Your task to perform on an android device: change text size in settings app Image 0: 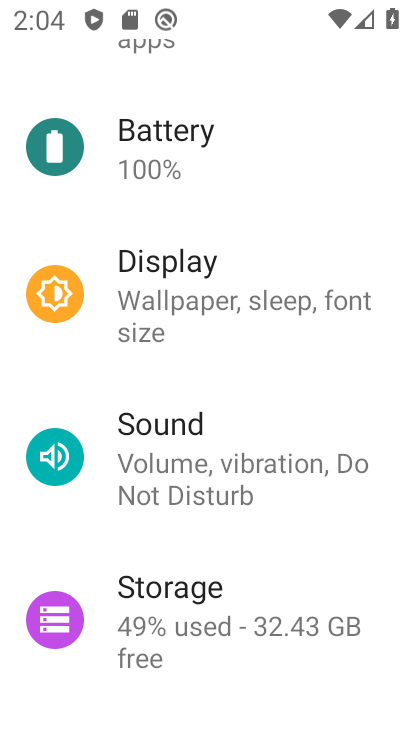
Step 0: drag from (325, 634) to (280, 353)
Your task to perform on an android device: change text size in settings app Image 1: 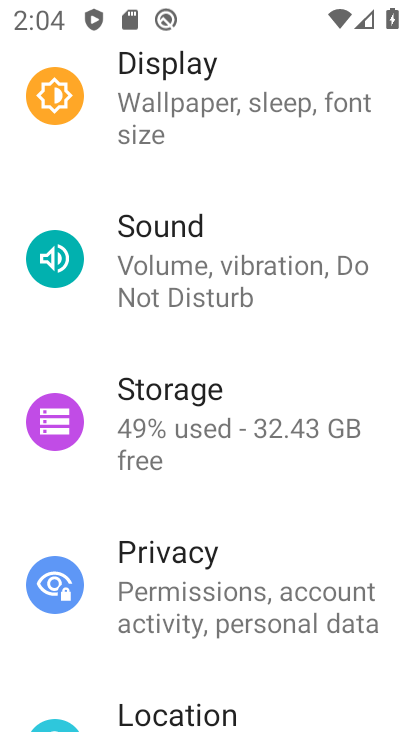
Step 1: click (226, 99)
Your task to perform on an android device: change text size in settings app Image 2: 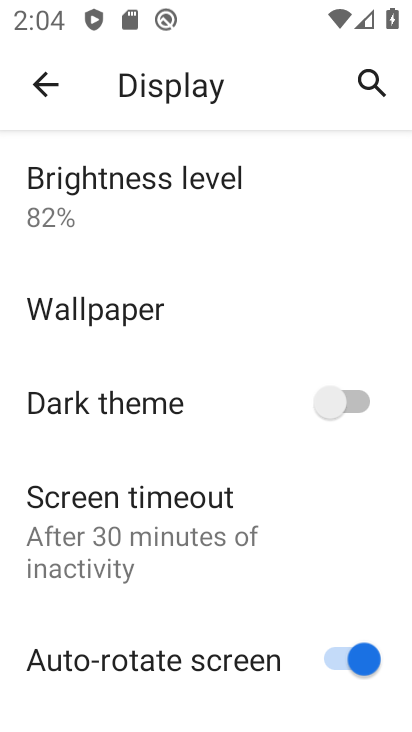
Step 2: drag from (187, 588) to (209, 191)
Your task to perform on an android device: change text size in settings app Image 3: 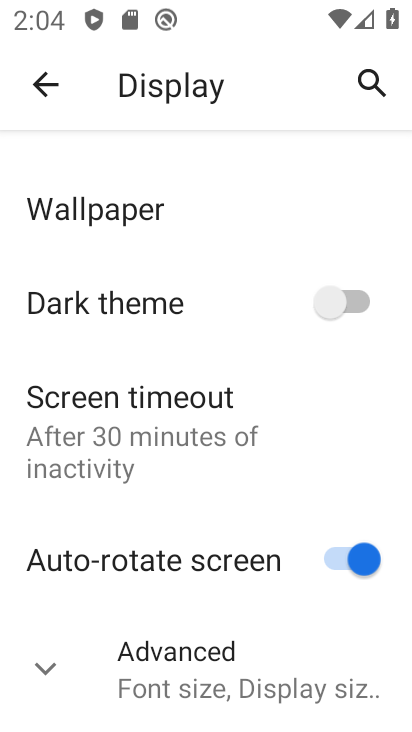
Step 3: click (78, 658)
Your task to perform on an android device: change text size in settings app Image 4: 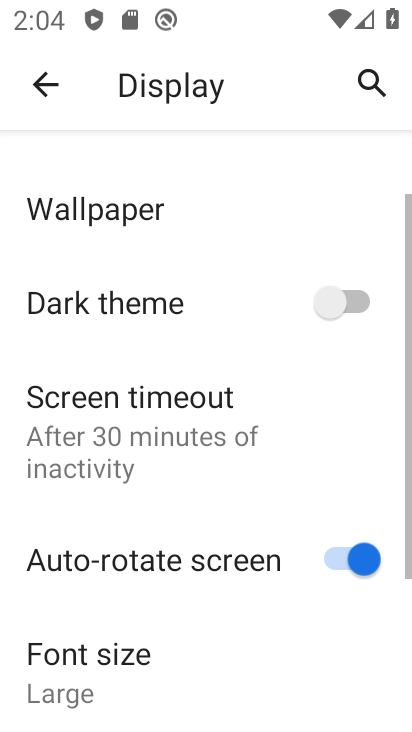
Step 4: drag from (120, 642) to (136, 240)
Your task to perform on an android device: change text size in settings app Image 5: 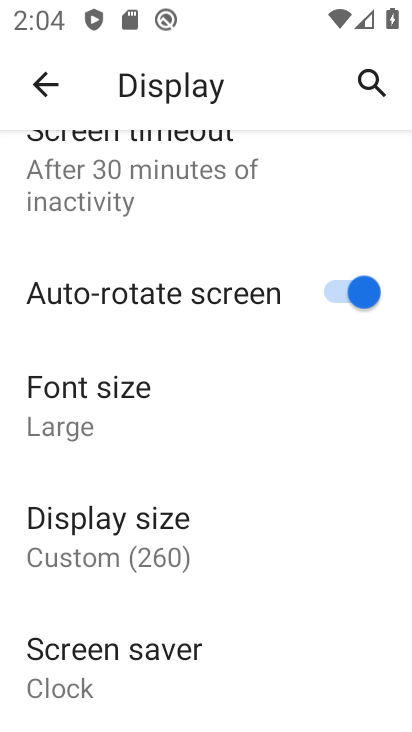
Step 5: click (113, 412)
Your task to perform on an android device: change text size in settings app Image 6: 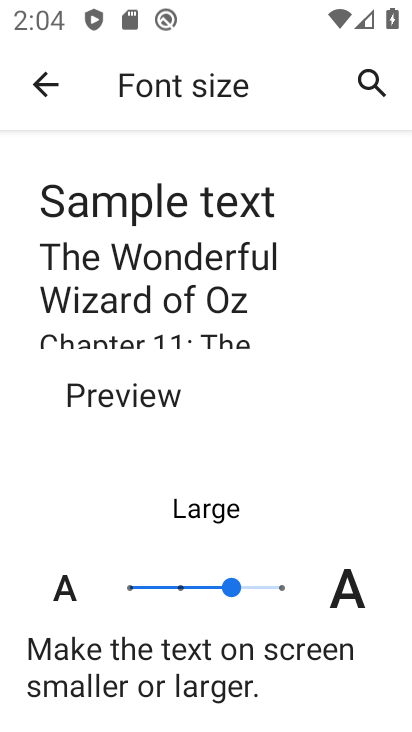
Step 6: click (281, 590)
Your task to perform on an android device: change text size in settings app Image 7: 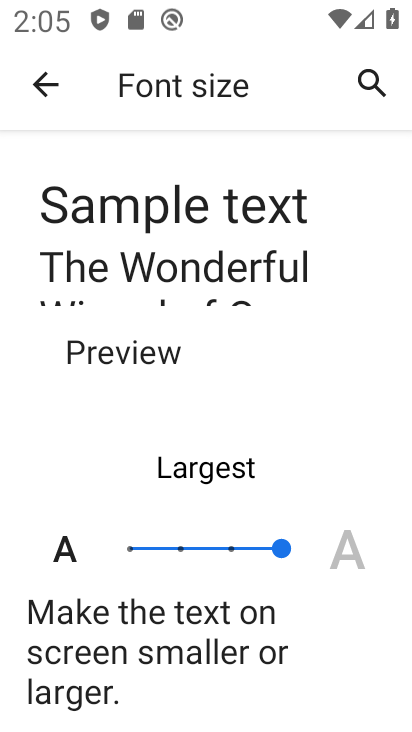
Step 7: task complete